Your task to perform on an android device: Is it going to rain today? Image 0: 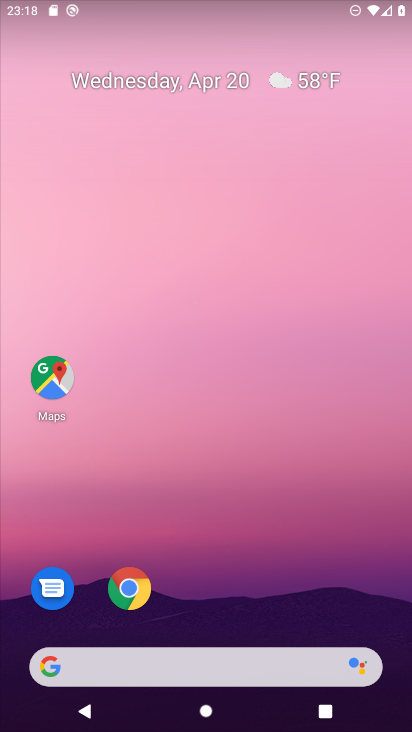
Step 0: click (280, 78)
Your task to perform on an android device: Is it going to rain today? Image 1: 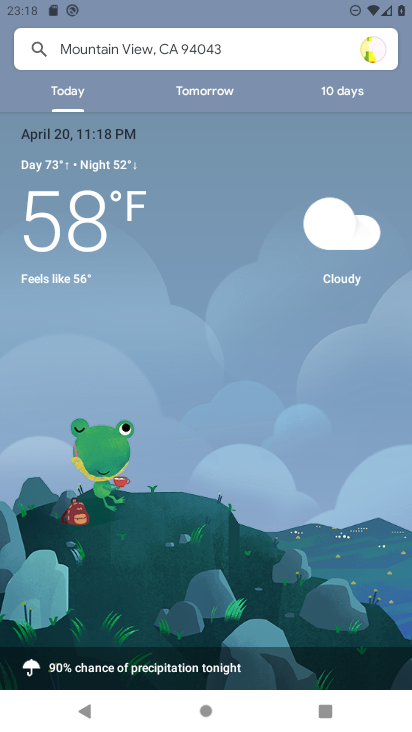
Step 1: task complete